Your task to perform on an android device: change the clock display to digital Image 0: 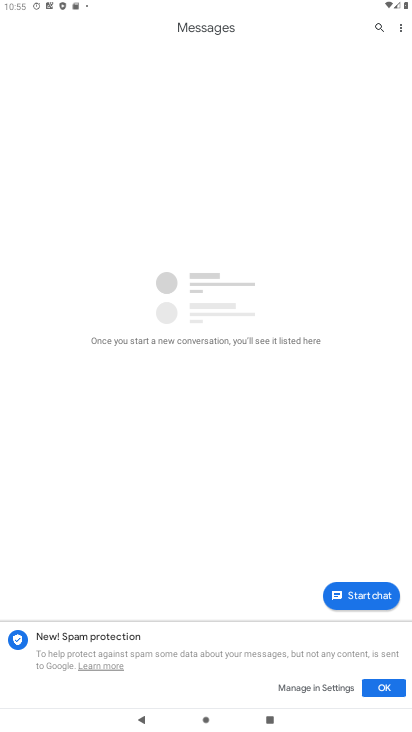
Step 0: drag from (214, 502) to (302, 51)
Your task to perform on an android device: change the clock display to digital Image 1: 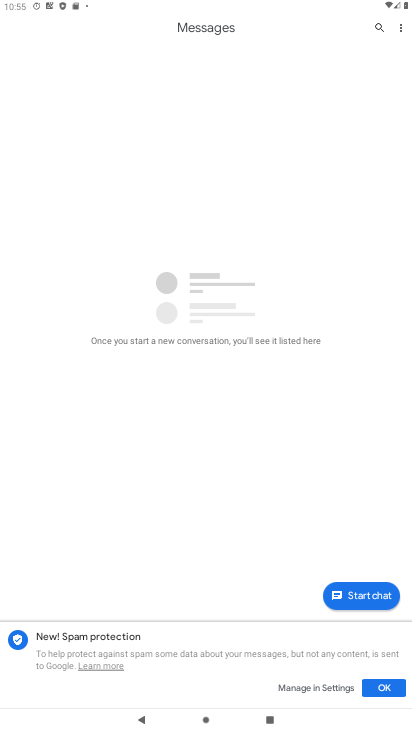
Step 1: press home button
Your task to perform on an android device: change the clock display to digital Image 2: 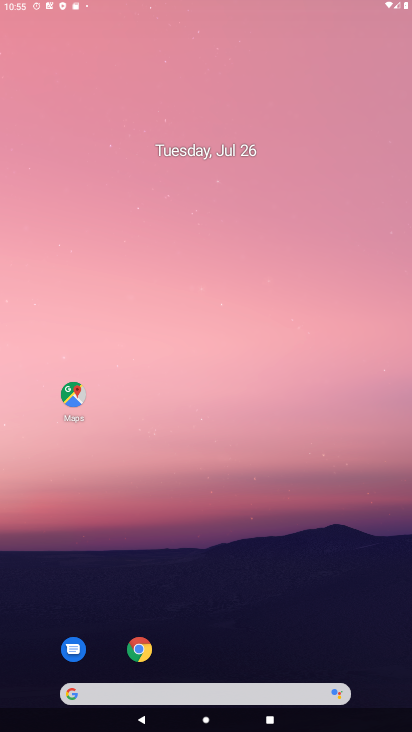
Step 2: drag from (216, 589) to (0, 80)
Your task to perform on an android device: change the clock display to digital Image 3: 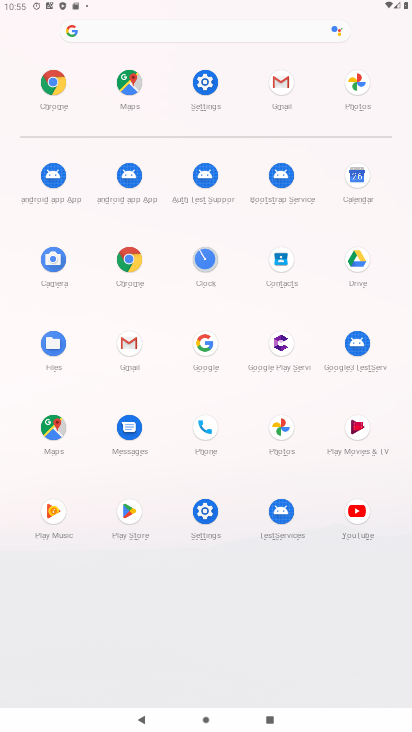
Step 3: click (201, 250)
Your task to perform on an android device: change the clock display to digital Image 4: 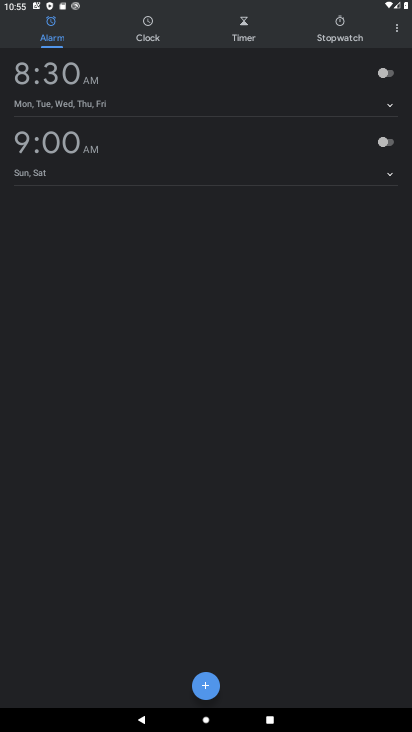
Step 4: drag from (388, 26) to (67, 450)
Your task to perform on an android device: change the clock display to digital Image 5: 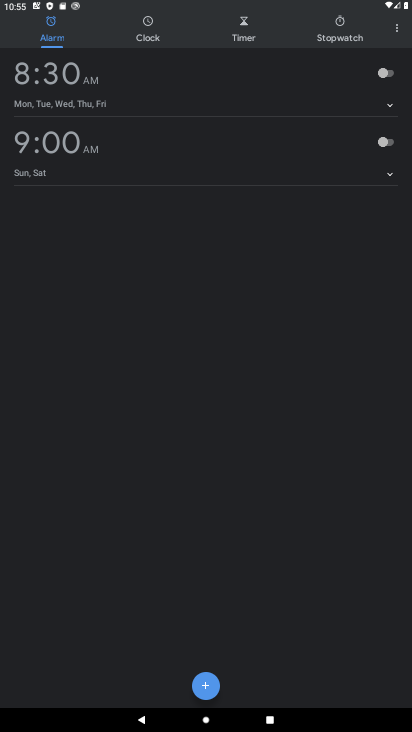
Step 5: drag from (399, 27) to (342, 53)
Your task to perform on an android device: change the clock display to digital Image 6: 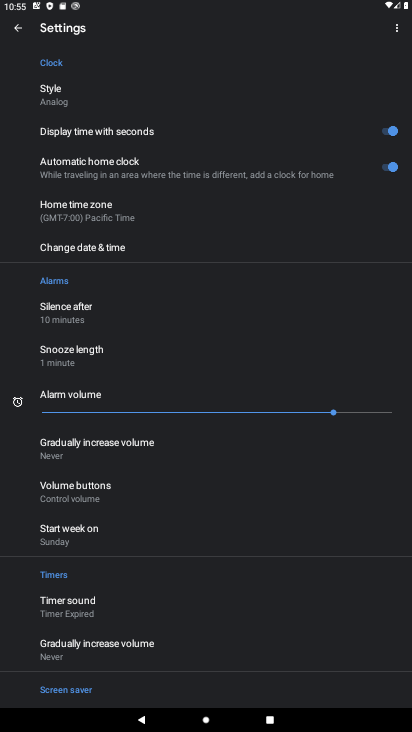
Step 6: click (75, 85)
Your task to perform on an android device: change the clock display to digital Image 7: 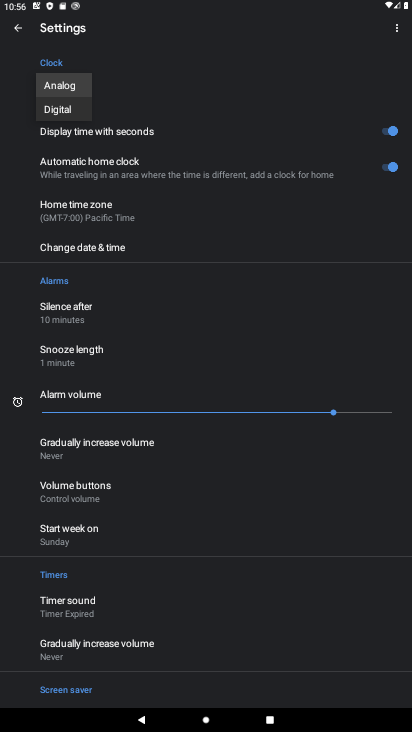
Step 7: click (53, 111)
Your task to perform on an android device: change the clock display to digital Image 8: 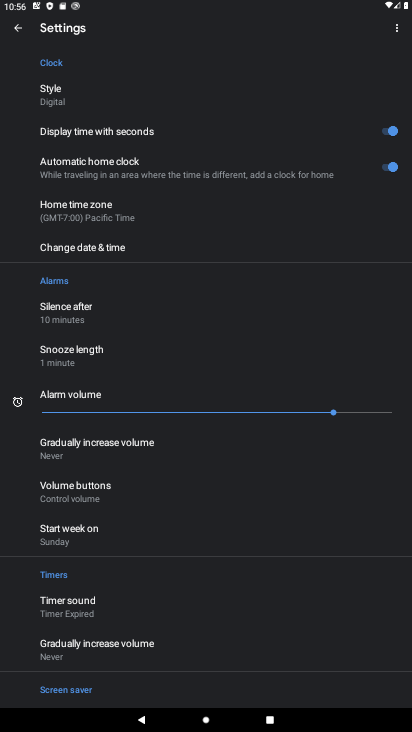
Step 8: task complete